Your task to perform on an android device: Go to notification settings Image 0: 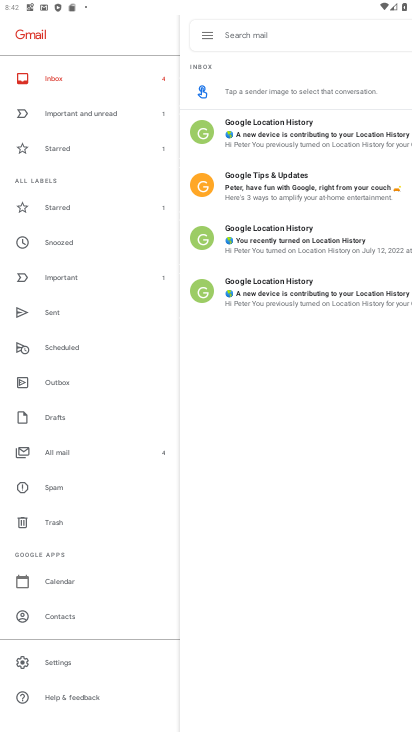
Step 0: press home button
Your task to perform on an android device: Go to notification settings Image 1: 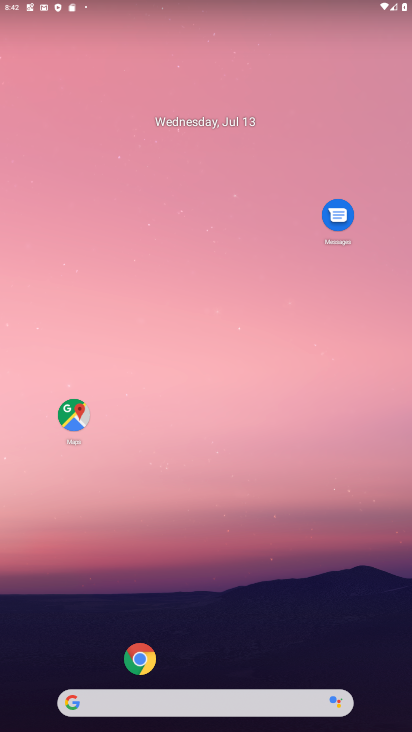
Step 1: drag from (26, 701) to (220, 0)
Your task to perform on an android device: Go to notification settings Image 2: 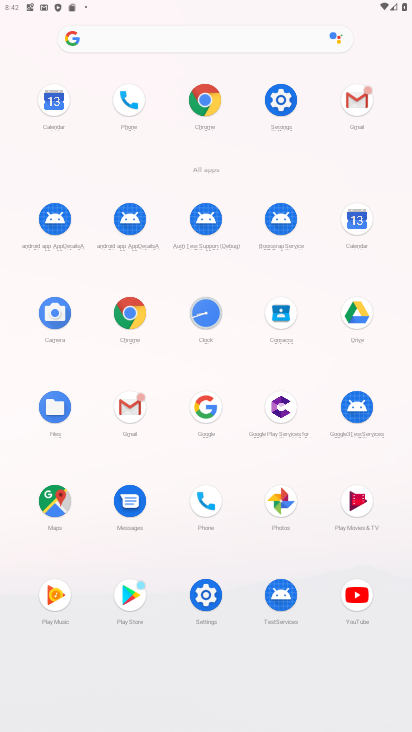
Step 2: click (206, 601)
Your task to perform on an android device: Go to notification settings Image 3: 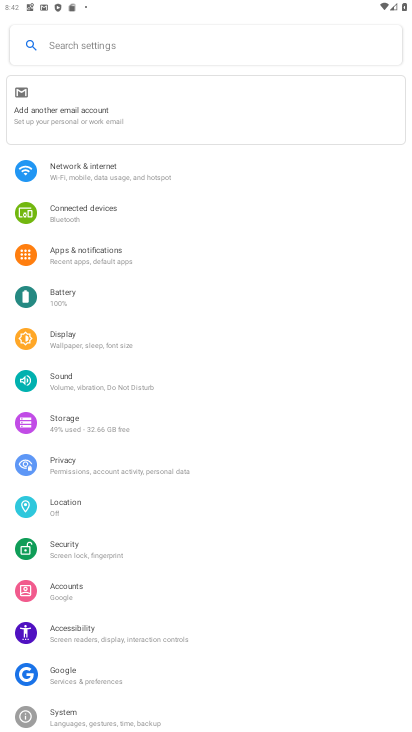
Step 3: click (90, 253)
Your task to perform on an android device: Go to notification settings Image 4: 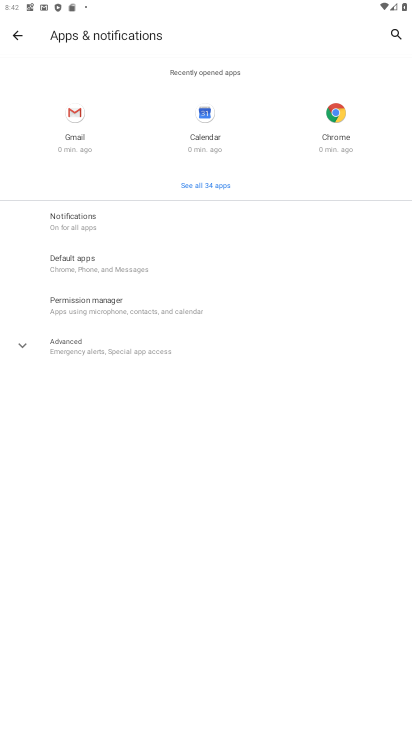
Step 4: click (108, 213)
Your task to perform on an android device: Go to notification settings Image 5: 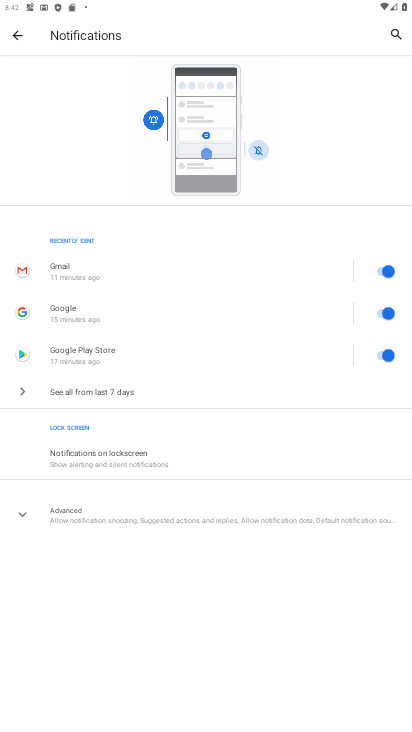
Step 5: task complete